Your task to perform on an android device: What's on my calendar tomorrow? Image 0: 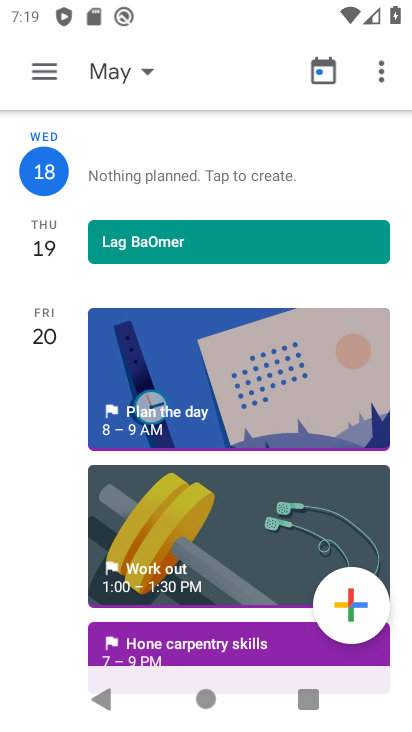
Step 0: press home button
Your task to perform on an android device: What's on my calendar tomorrow? Image 1: 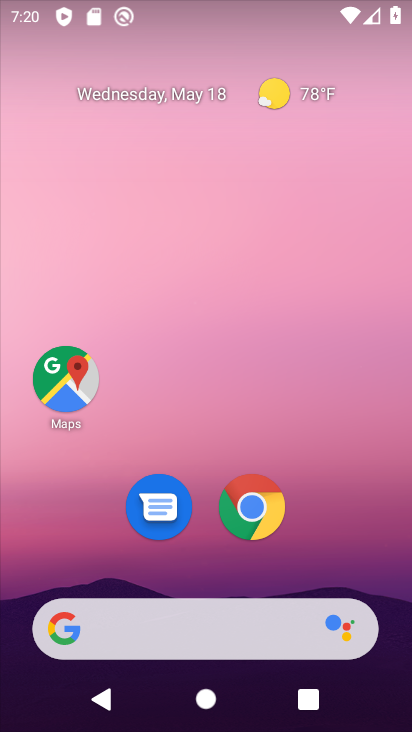
Step 1: drag from (270, 663) to (329, 153)
Your task to perform on an android device: What's on my calendar tomorrow? Image 2: 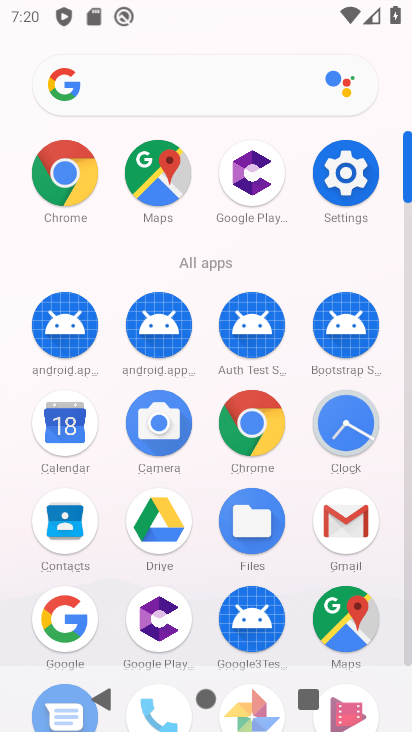
Step 2: click (64, 440)
Your task to perform on an android device: What's on my calendar tomorrow? Image 3: 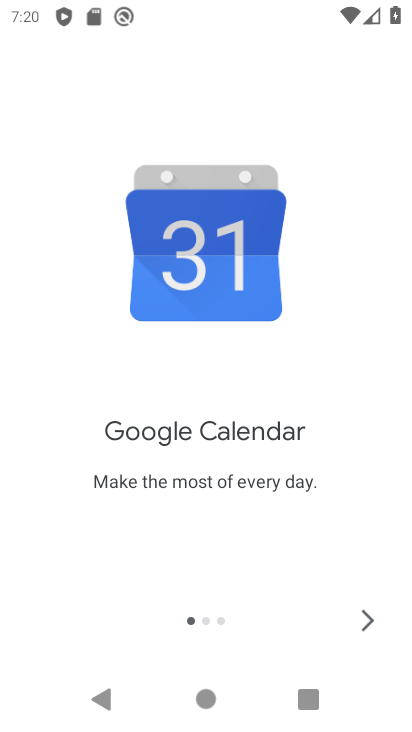
Step 3: click (388, 627)
Your task to perform on an android device: What's on my calendar tomorrow? Image 4: 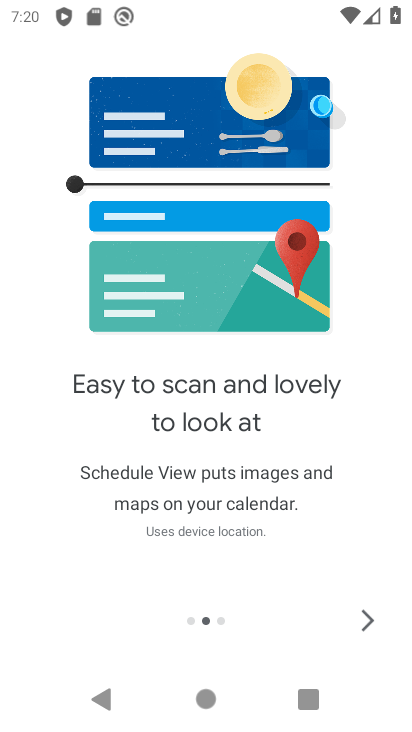
Step 4: click (373, 632)
Your task to perform on an android device: What's on my calendar tomorrow? Image 5: 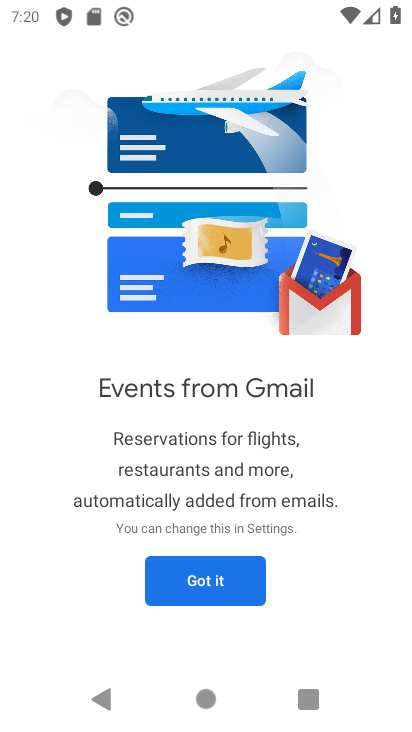
Step 5: click (193, 595)
Your task to perform on an android device: What's on my calendar tomorrow? Image 6: 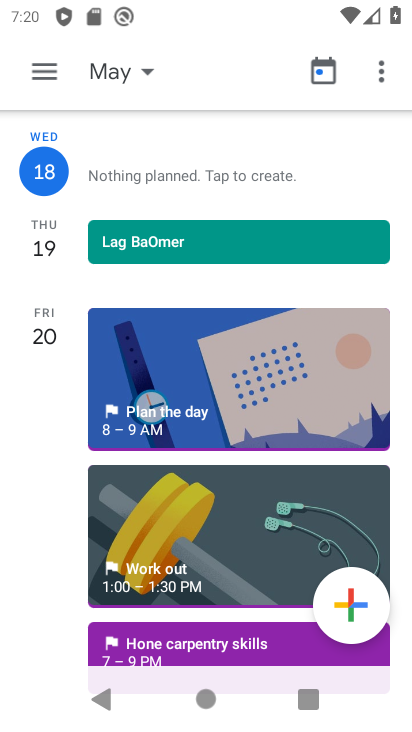
Step 6: task complete